Your task to perform on an android device: Open Google Image 0: 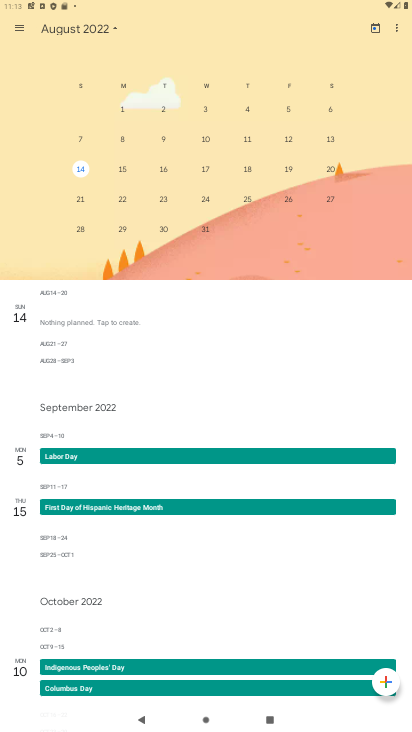
Step 0: press home button
Your task to perform on an android device: Open Google Image 1: 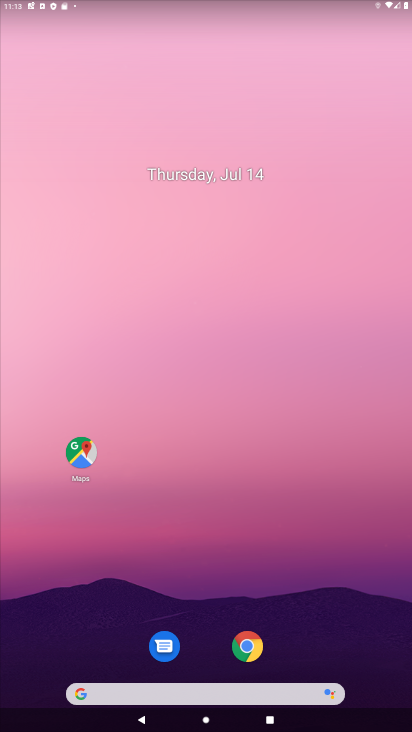
Step 1: drag from (198, 521) to (190, 117)
Your task to perform on an android device: Open Google Image 2: 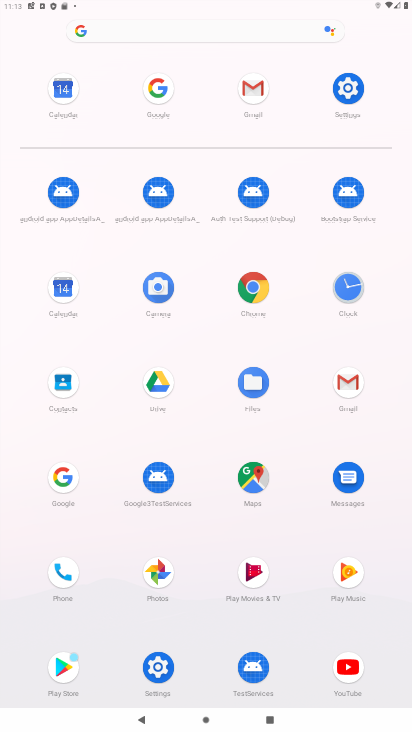
Step 2: click (61, 483)
Your task to perform on an android device: Open Google Image 3: 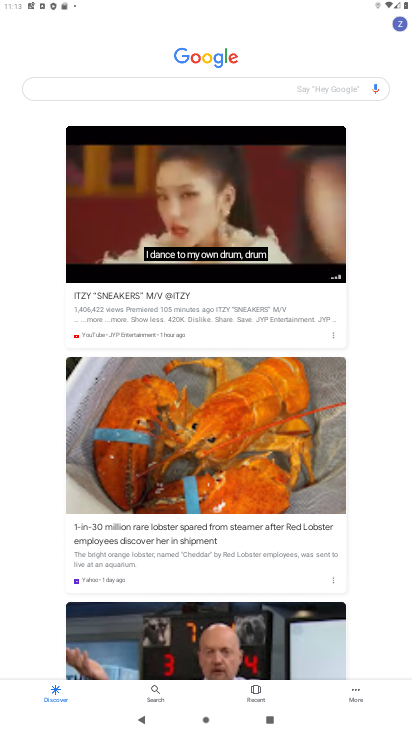
Step 3: task complete